Your task to perform on an android device: open app "HBO Max: Stream TV & Movies" (install if not already installed) Image 0: 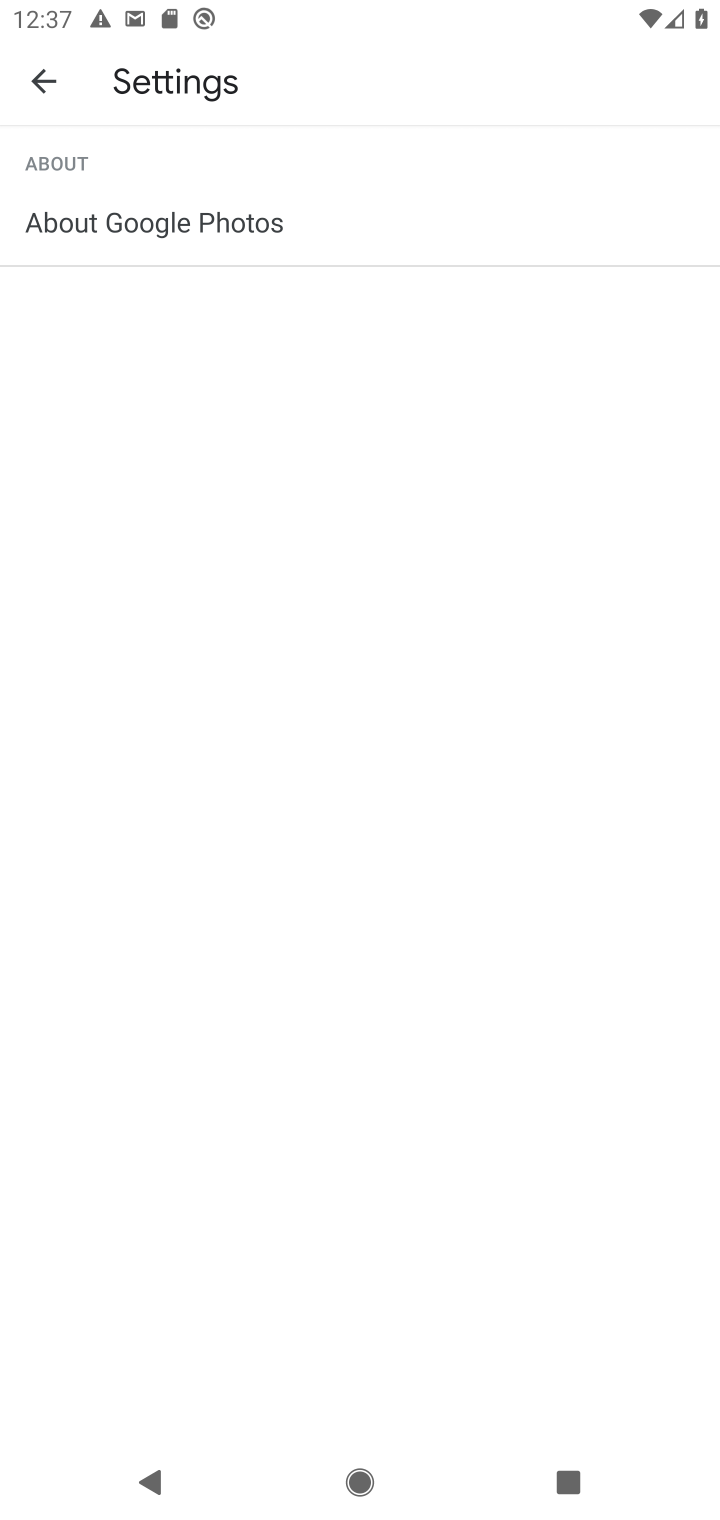
Step 0: press home button
Your task to perform on an android device: open app "HBO Max: Stream TV & Movies" (install if not already installed) Image 1: 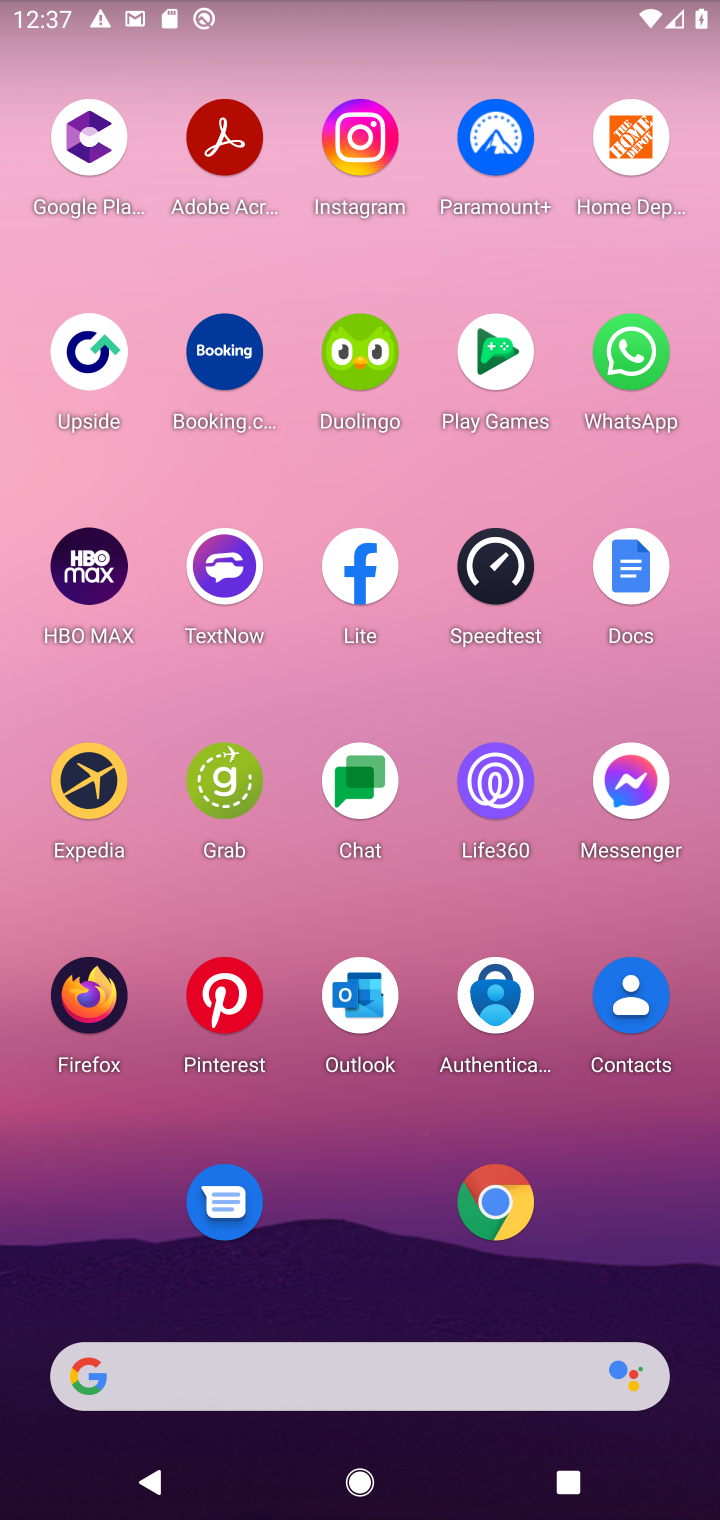
Step 1: drag from (343, 857) to (363, 168)
Your task to perform on an android device: open app "HBO Max: Stream TV & Movies" (install if not already installed) Image 2: 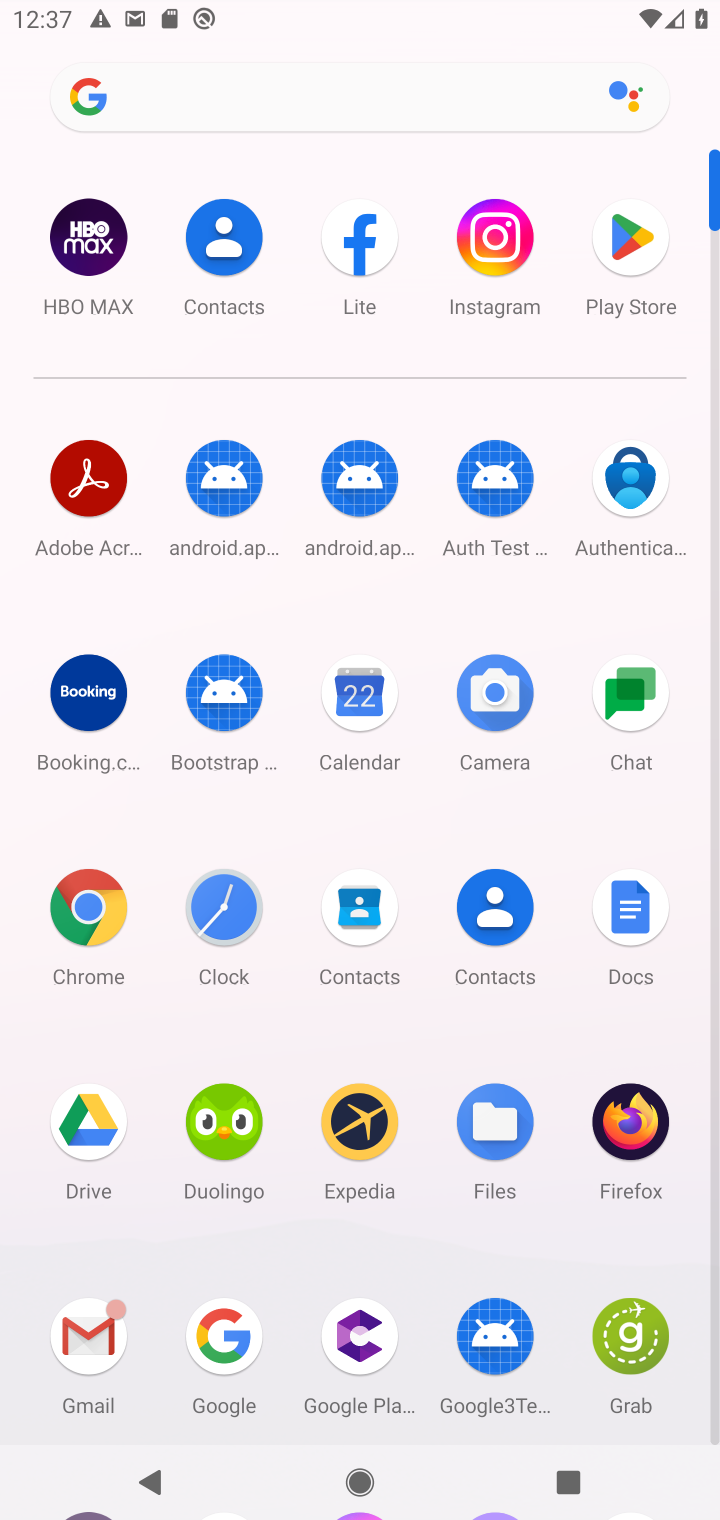
Step 2: click (97, 237)
Your task to perform on an android device: open app "HBO Max: Stream TV & Movies" (install if not already installed) Image 3: 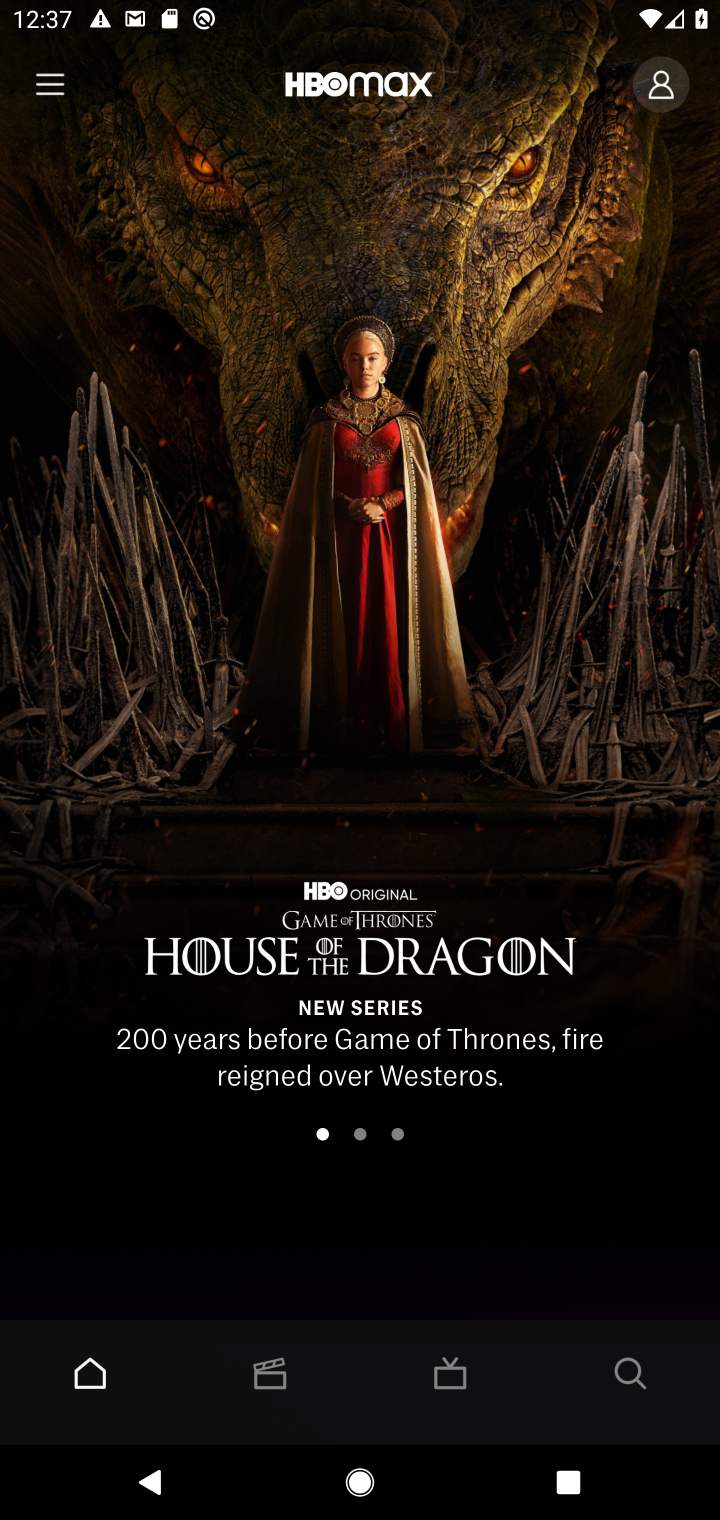
Step 3: click (656, 82)
Your task to perform on an android device: open app "HBO Max: Stream TV & Movies" (install if not already installed) Image 4: 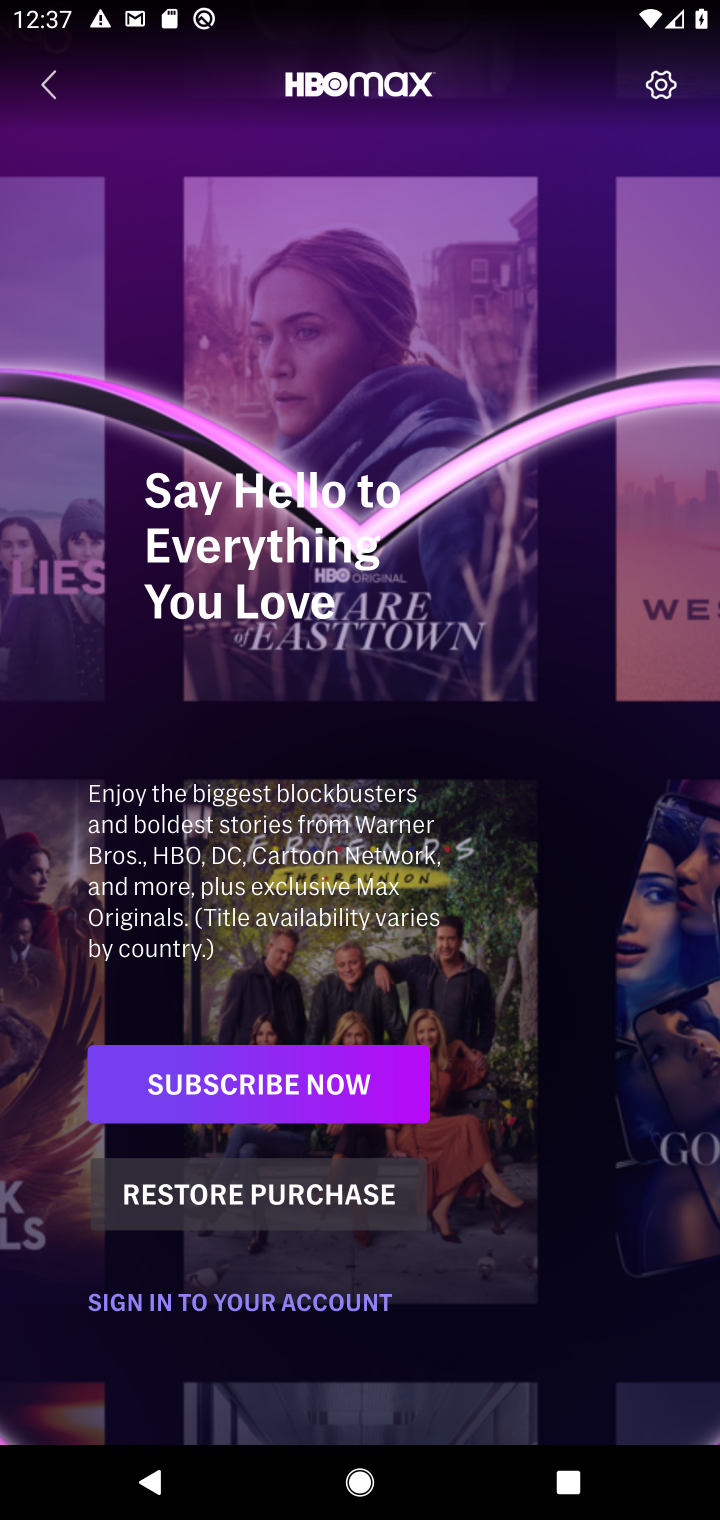
Step 4: task complete